Your task to perform on an android device: turn on the 24-hour format for clock Image 0: 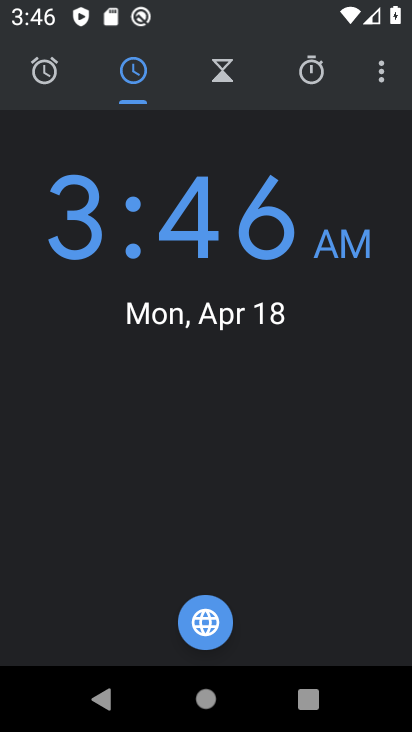
Step 0: click (379, 73)
Your task to perform on an android device: turn on the 24-hour format for clock Image 1: 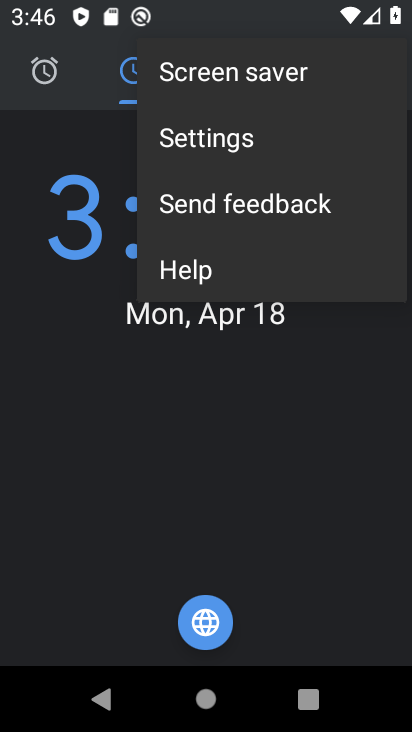
Step 1: click (230, 118)
Your task to perform on an android device: turn on the 24-hour format for clock Image 2: 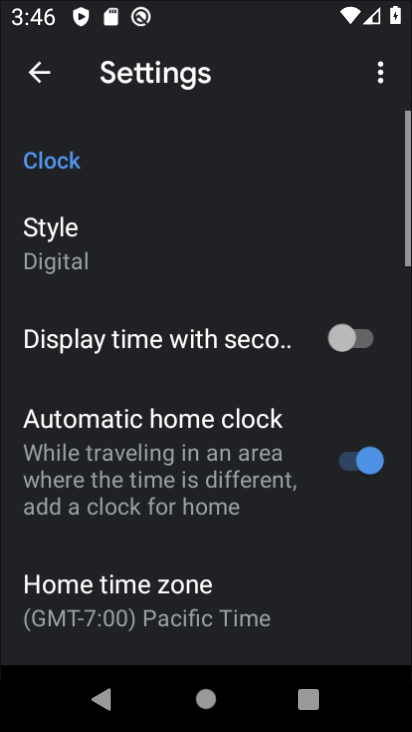
Step 2: click (197, 127)
Your task to perform on an android device: turn on the 24-hour format for clock Image 3: 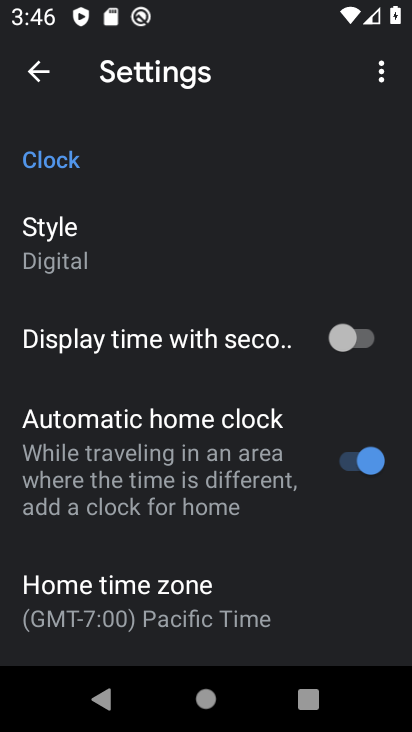
Step 3: click (156, 474)
Your task to perform on an android device: turn on the 24-hour format for clock Image 4: 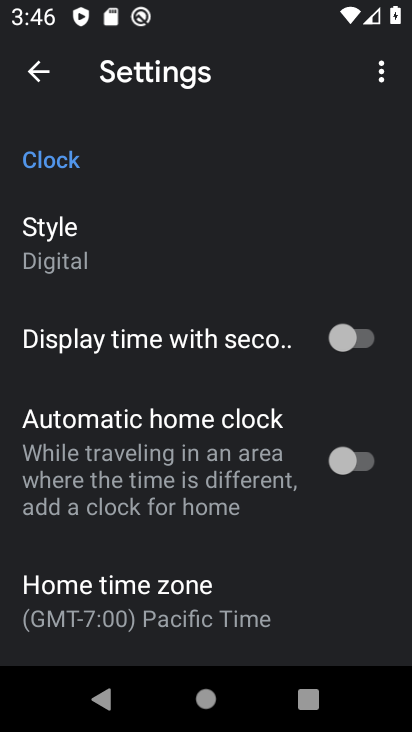
Step 4: click (199, 485)
Your task to perform on an android device: turn on the 24-hour format for clock Image 5: 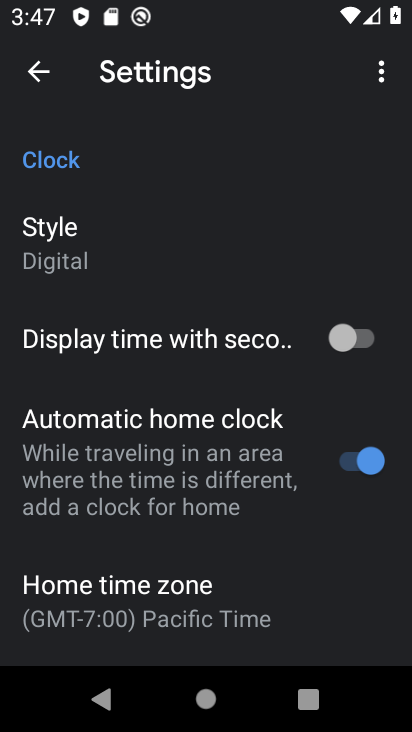
Step 5: click (112, 464)
Your task to perform on an android device: turn on the 24-hour format for clock Image 6: 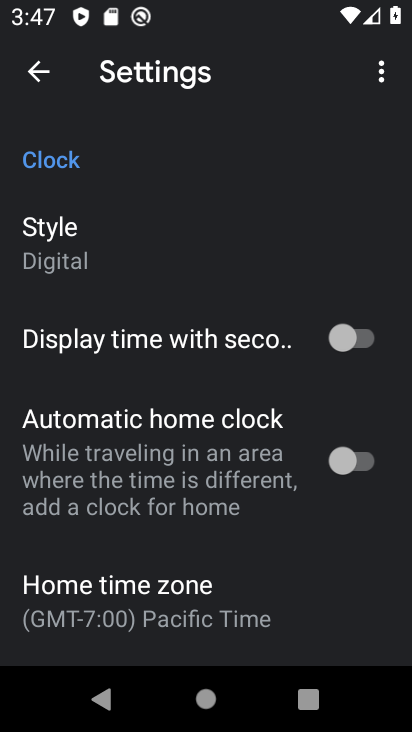
Step 6: click (119, 478)
Your task to perform on an android device: turn on the 24-hour format for clock Image 7: 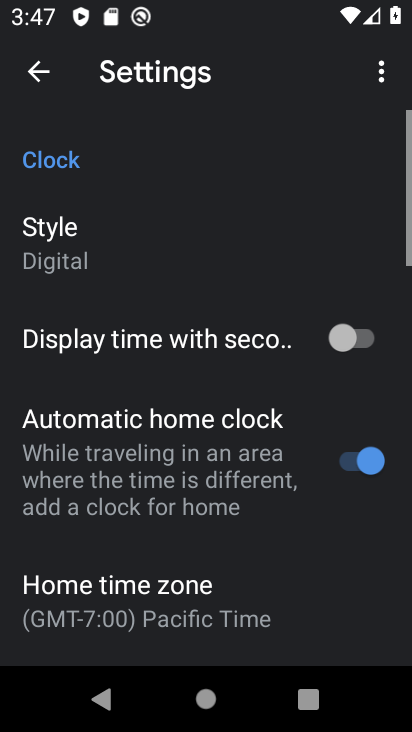
Step 7: drag from (135, 496) to (158, 192)
Your task to perform on an android device: turn on the 24-hour format for clock Image 8: 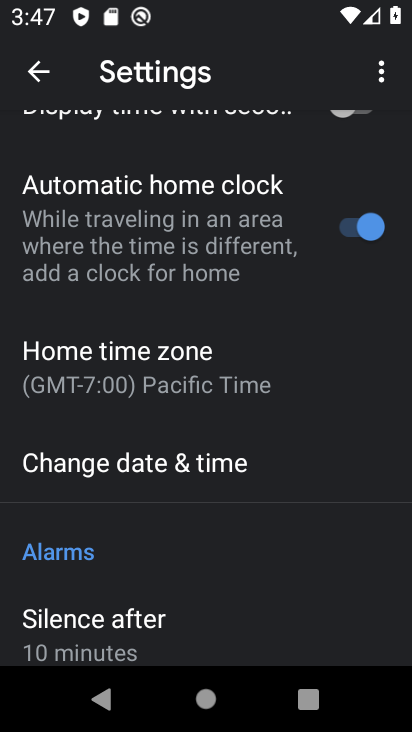
Step 8: click (160, 528)
Your task to perform on an android device: turn on the 24-hour format for clock Image 9: 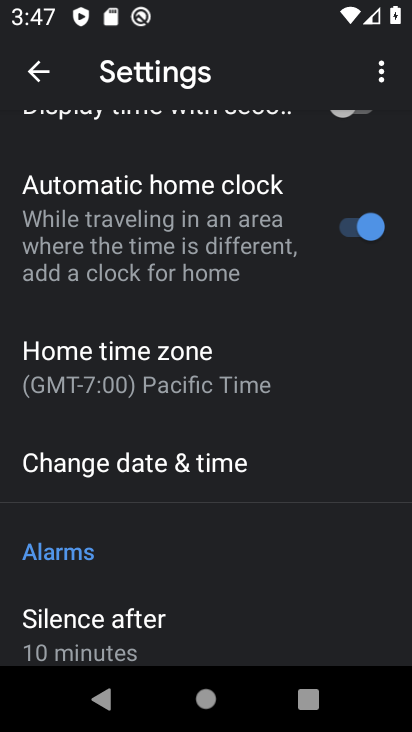
Step 9: click (154, 459)
Your task to perform on an android device: turn on the 24-hour format for clock Image 10: 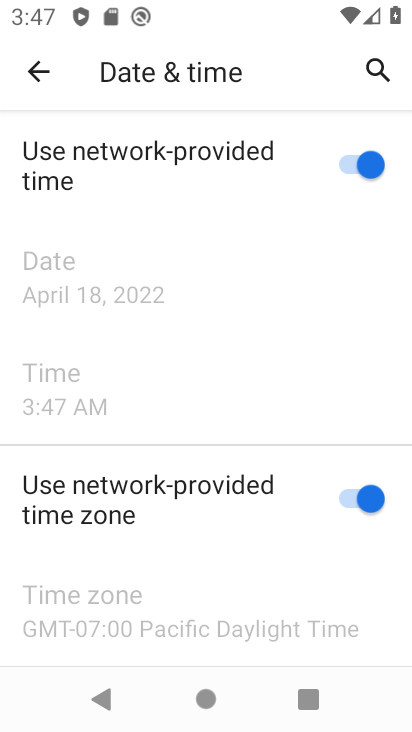
Step 10: drag from (225, 501) to (277, 232)
Your task to perform on an android device: turn on the 24-hour format for clock Image 11: 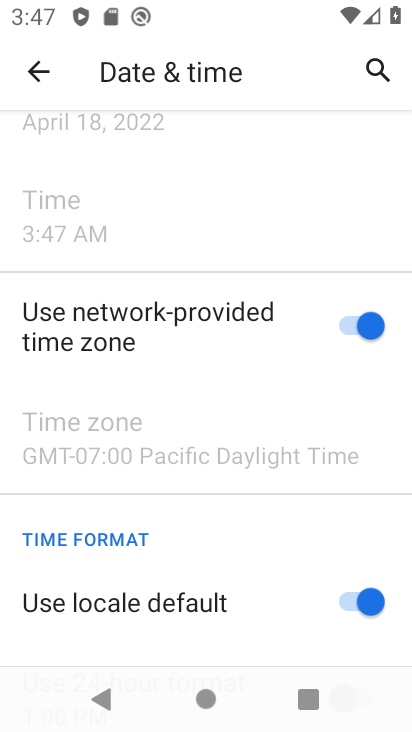
Step 11: drag from (223, 415) to (272, 131)
Your task to perform on an android device: turn on the 24-hour format for clock Image 12: 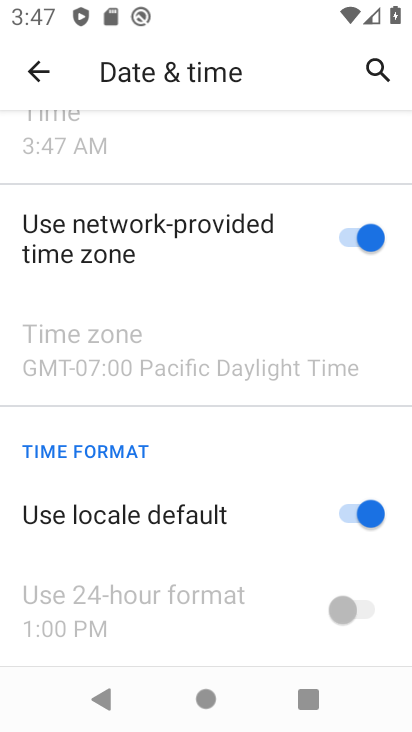
Step 12: click (343, 513)
Your task to perform on an android device: turn on the 24-hour format for clock Image 13: 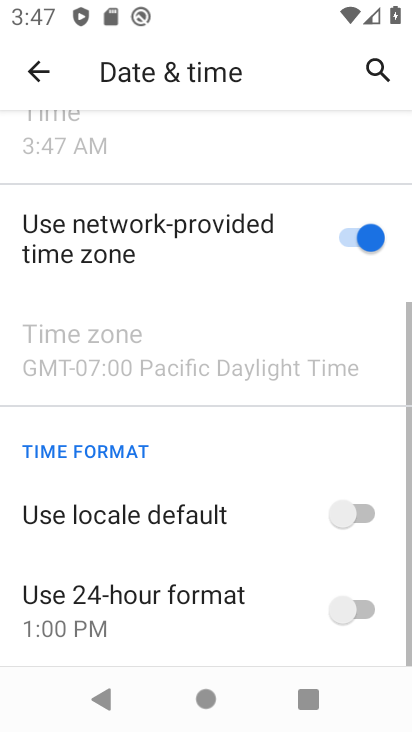
Step 13: click (354, 610)
Your task to perform on an android device: turn on the 24-hour format for clock Image 14: 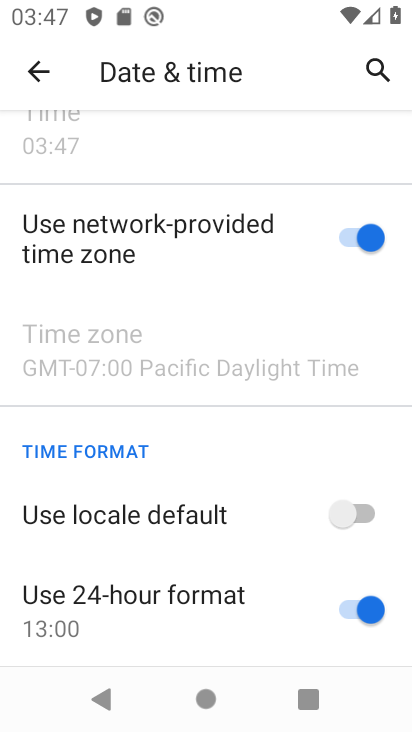
Step 14: task complete